Your task to perform on an android device: Open network settings Image 0: 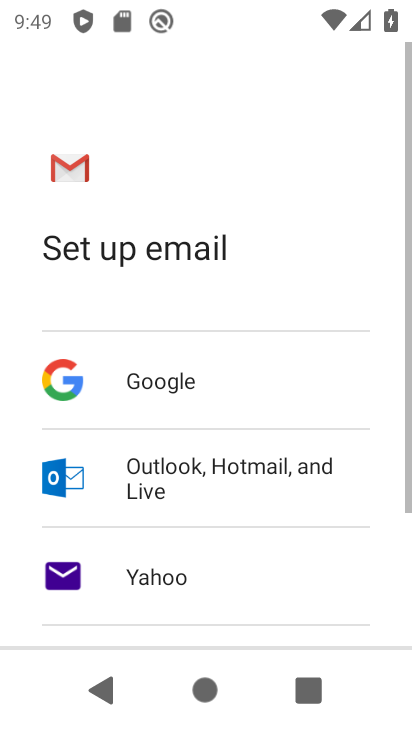
Step 0: press home button
Your task to perform on an android device: Open network settings Image 1: 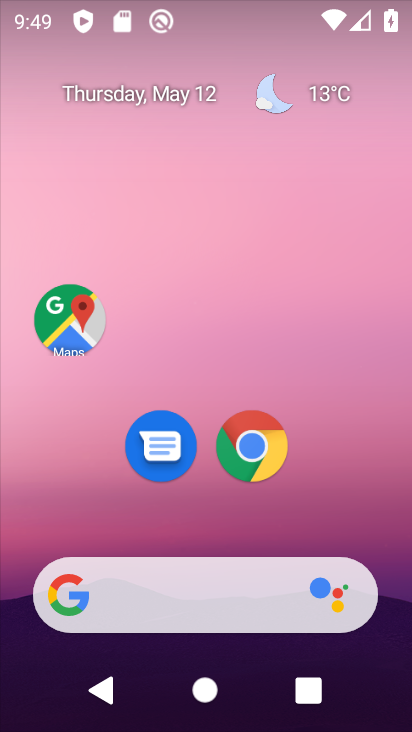
Step 1: drag from (203, 517) to (243, 63)
Your task to perform on an android device: Open network settings Image 2: 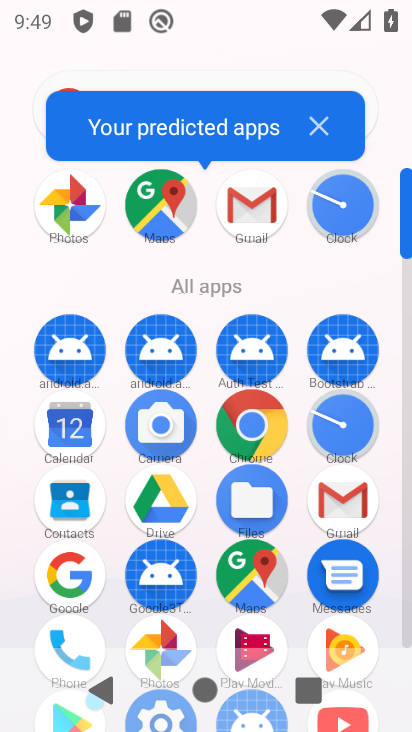
Step 2: drag from (293, 601) to (308, 212)
Your task to perform on an android device: Open network settings Image 3: 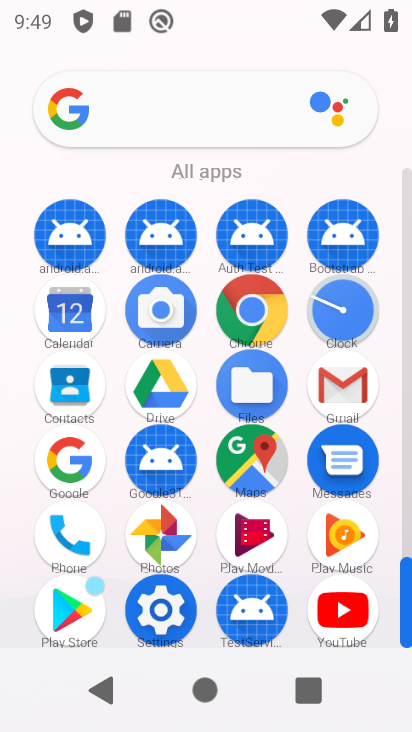
Step 3: click (160, 620)
Your task to perform on an android device: Open network settings Image 4: 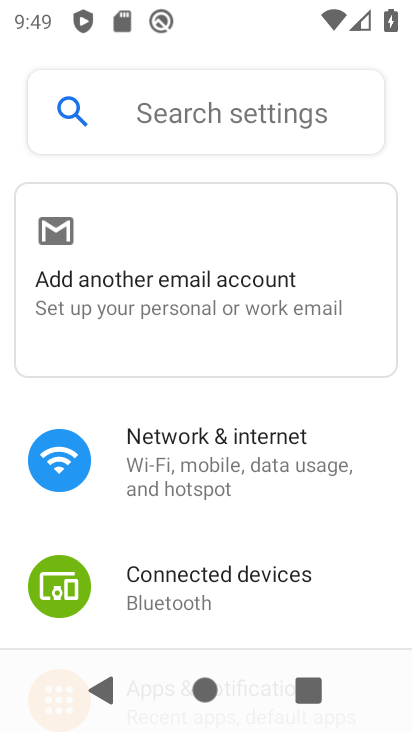
Step 4: click (182, 455)
Your task to perform on an android device: Open network settings Image 5: 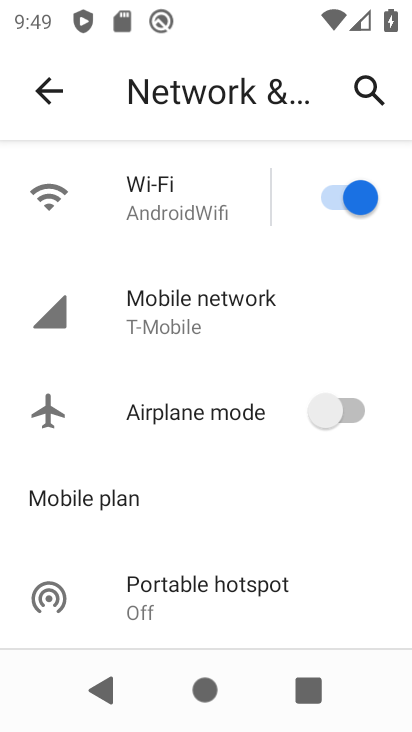
Step 5: click (191, 328)
Your task to perform on an android device: Open network settings Image 6: 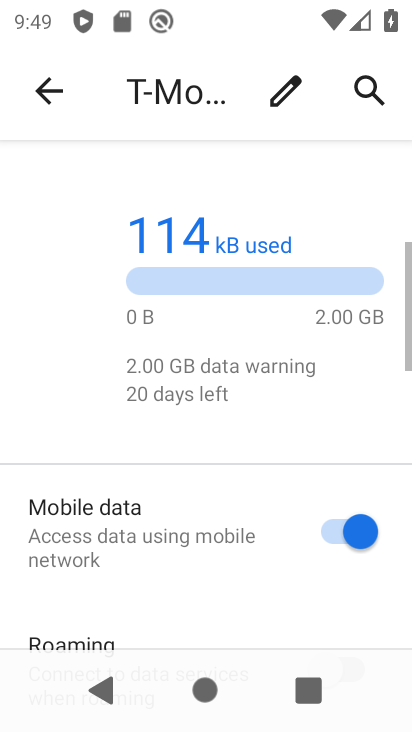
Step 6: task complete